Your task to perform on an android device: open wifi settings Image 0: 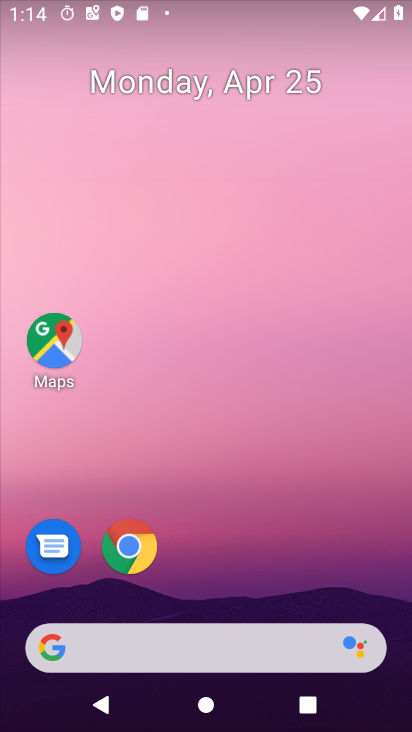
Step 0: drag from (202, 598) to (217, 24)
Your task to perform on an android device: open wifi settings Image 1: 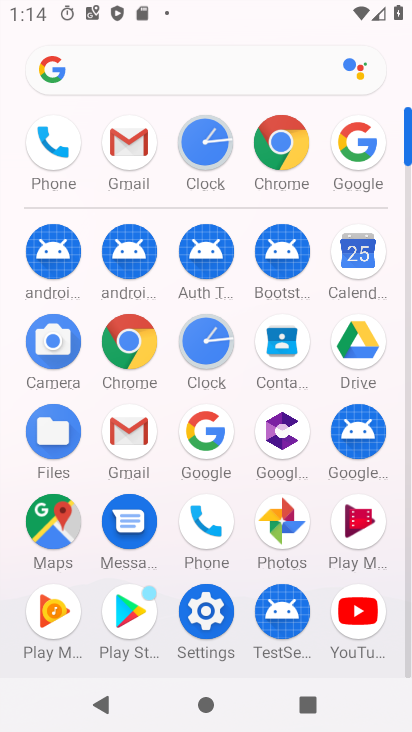
Step 1: click (194, 616)
Your task to perform on an android device: open wifi settings Image 2: 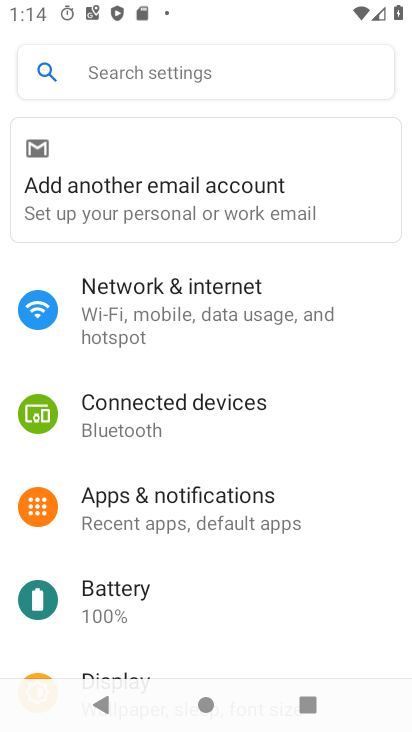
Step 2: click (180, 294)
Your task to perform on an android device: open wifi settings Image 3: 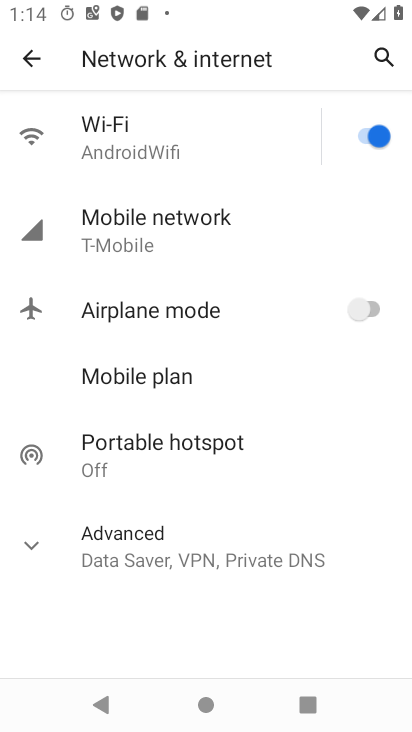
Step 3: click (147, 158)
Your task to perform on an android device: open wifi settings Image 4: 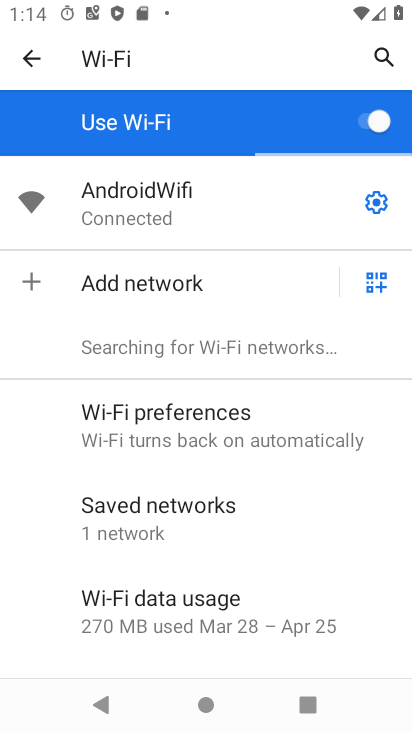
Step 4: task complete